Your task to perform on an android device: turn on airplane mode Image 0: 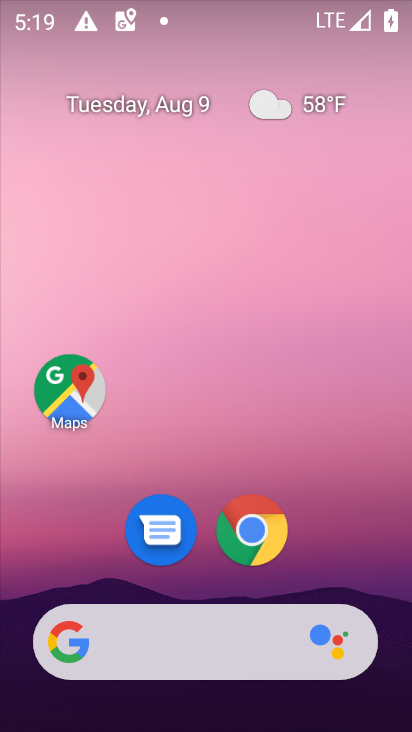
Step 0: click (247, 112)
Your task to perform on an android device: turn on airplane mode Image 1: 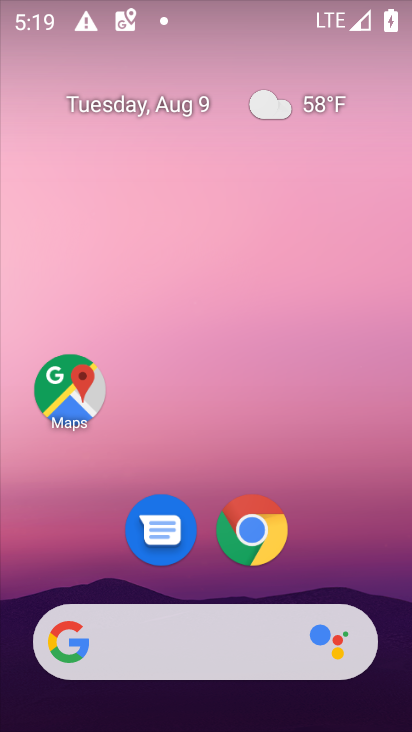
Step 1: drag from (171, 689) to (291, 64)
Your task to perform on an android device: turn on airplane mode Image 2: 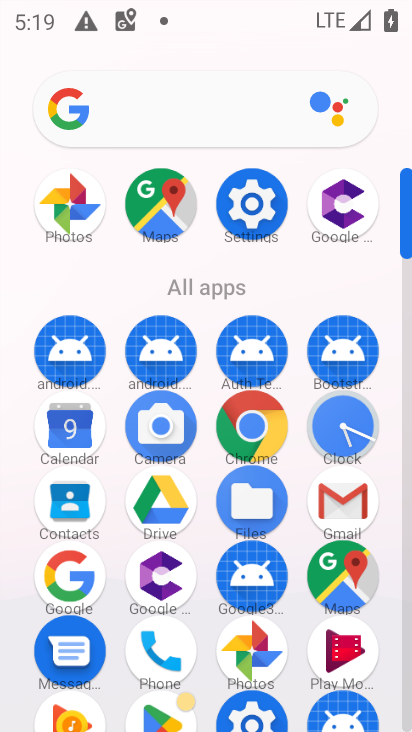
Step 2: click (247, 203)
Your task to perform on an android device: turn on airplane mode Image 3: 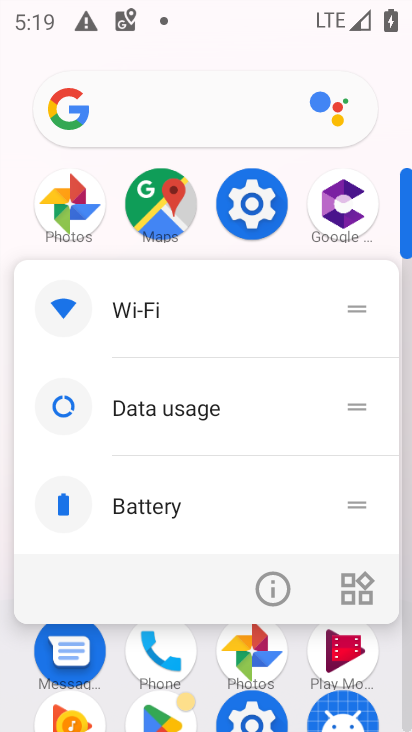
Step 3: click (254, 192)
Your task to perform on an android device: turn on airplane mode Image 4: 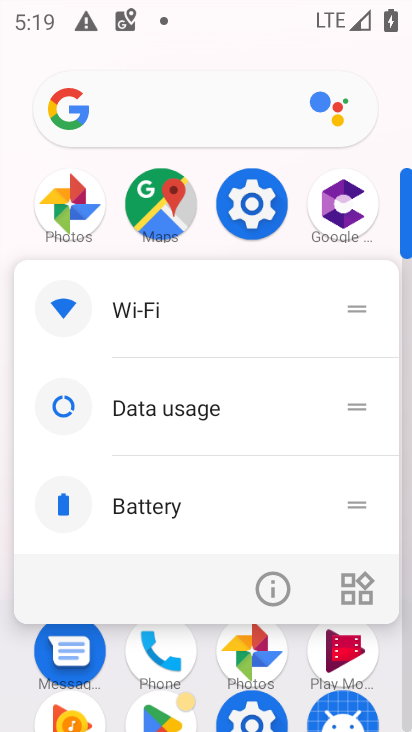
Step 4: click (275, 194)
Your task to perform on an android device: turn on airplane mode Image 5: 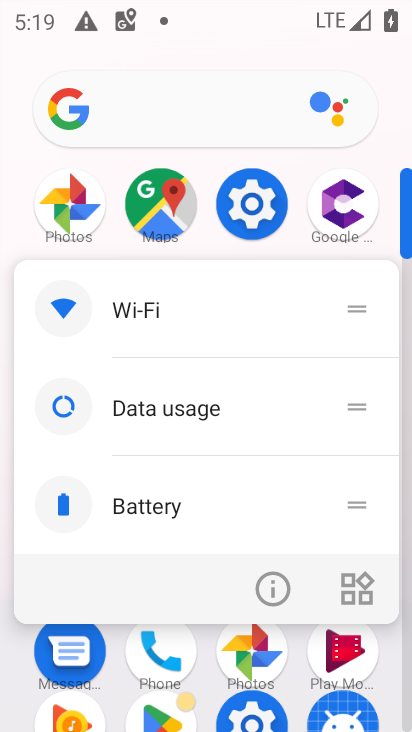
Step 5: click (275, 194)
Your task to perform on an android device: turn on airplane mode Image 6: 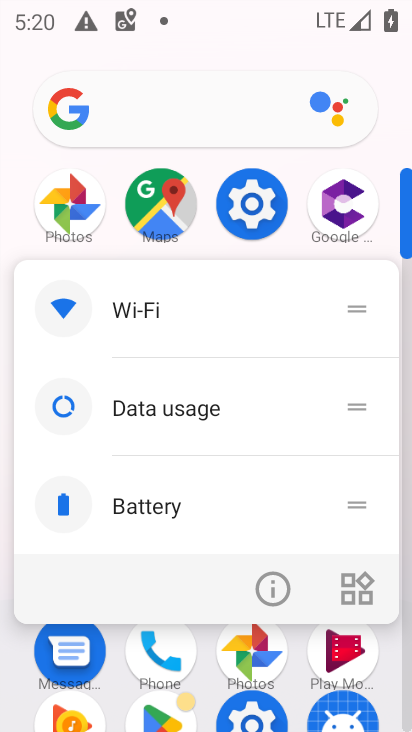
Step 6: click (275, 194)
Your task to perform on an android device: turn on airplane mode Image 7: 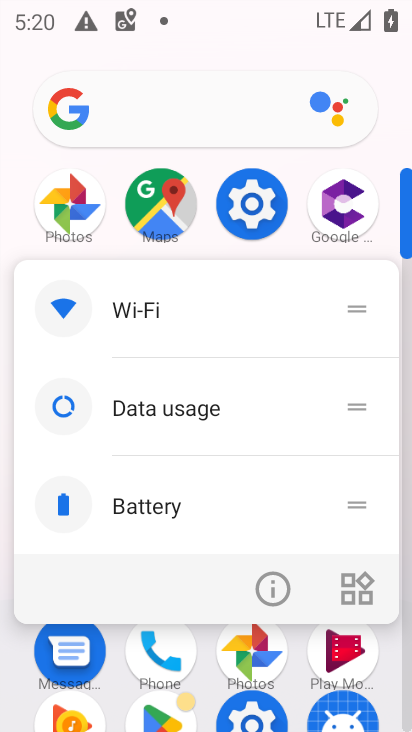
Step 7: click (273, 201)
Your task to perform on an android device: turn on airplane mode Image 8: 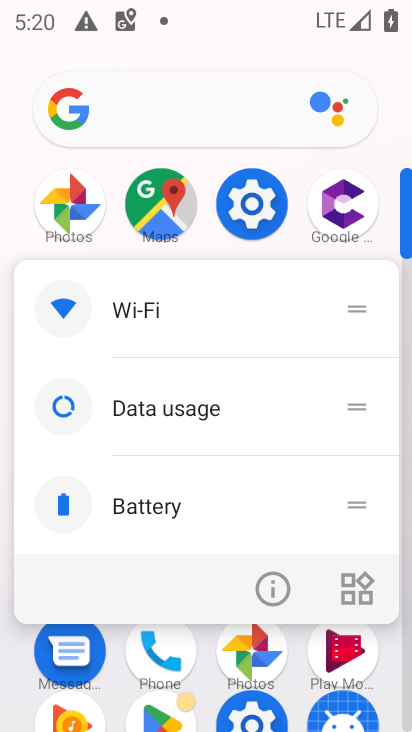
Step 8: click (273, 201)
Your task to perform on an android device: turn on airplane mode Image 9: 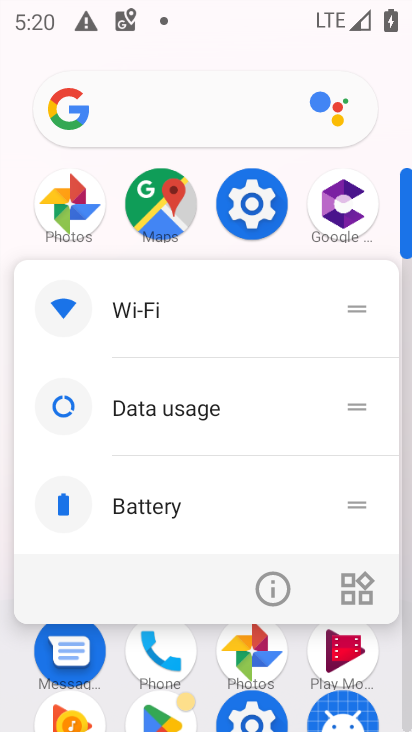
Step 9: click (273, 201)
Your task to perform on an android device: turn on airplane mode Image 10: 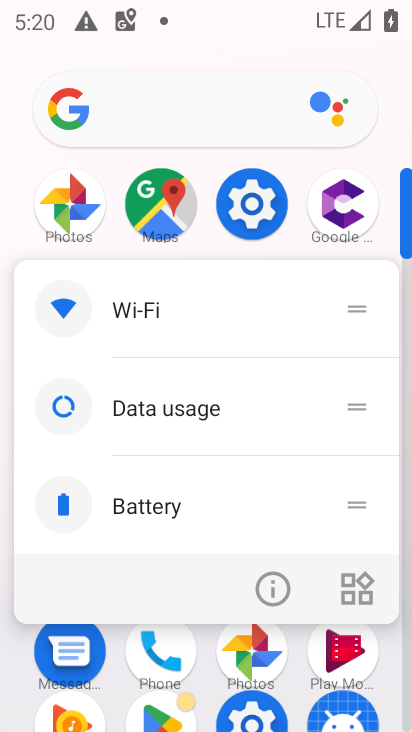
Step 10: click (252, 208)
Your task to perform on an android device: turn on airplane mode Image 11: 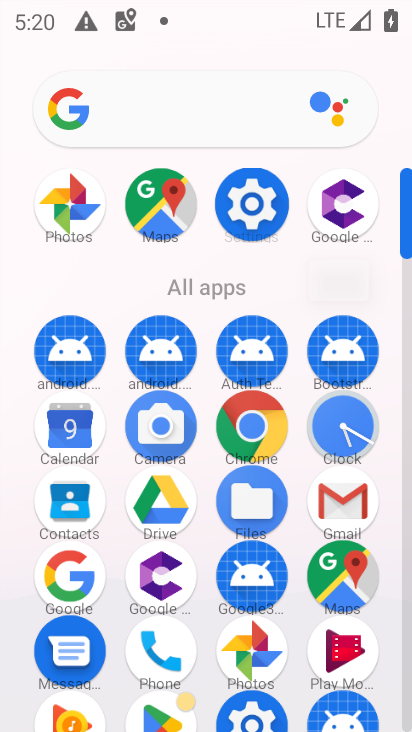
Step 11: click (252, 208)
Your task to perform on an android device: turn on airplane mode Image 12: 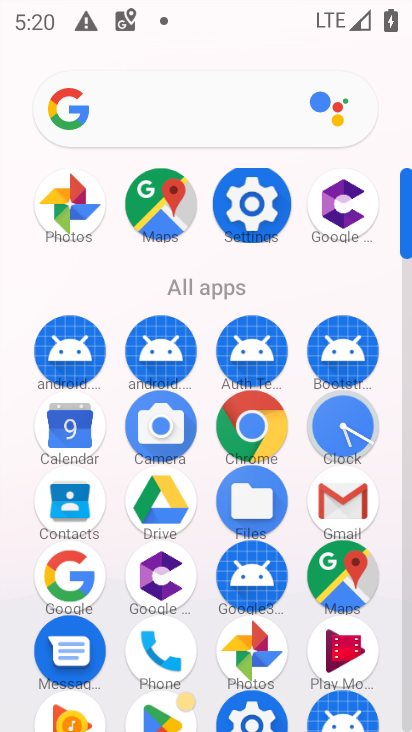
Step 12: click (252, 208)
Your task to perform on an android device: turn on airplane mode Image 13: 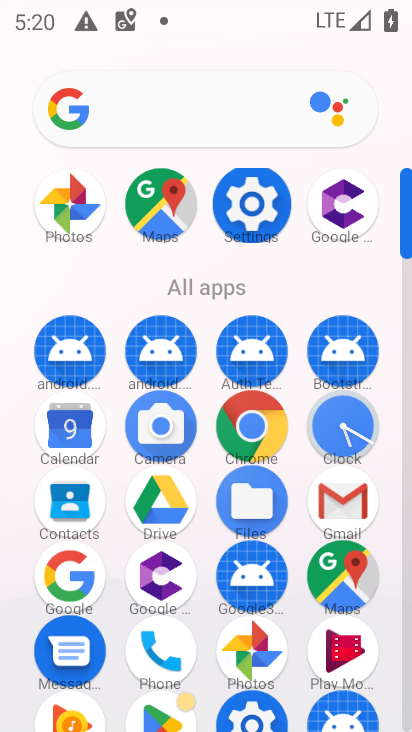
Step 13: click (252, 208)
Your task to perform on an android device: turn on airplane mode Image 14: 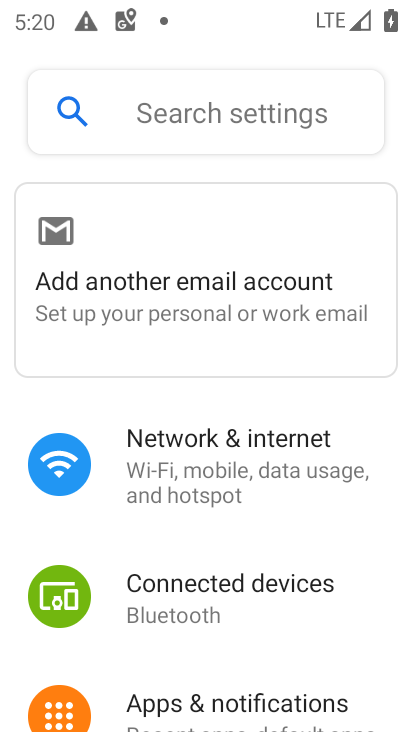
Step 14: click (267, 434)
Your task to perform on an android device: turn on airplane mode Image 15: 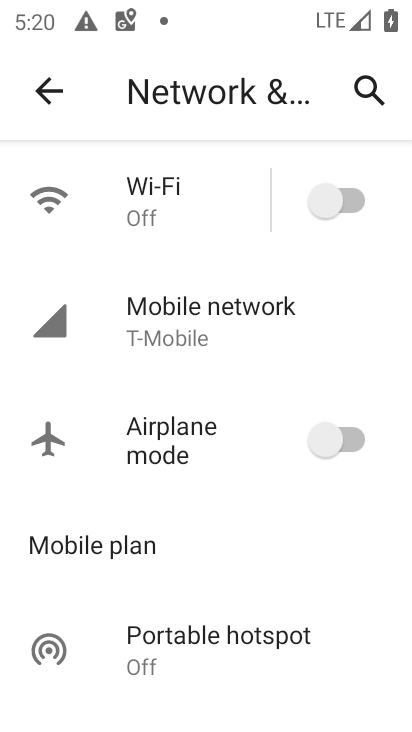
Step 15: click (331, 443)
Your task to perform on an android device: turn on airplane mode Image 16: 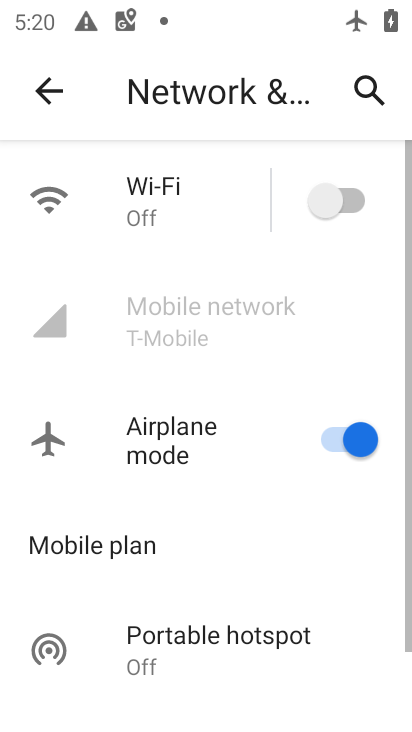
Step 16: task complete